Your task to perform on an android device: turn on javascript in the chrome app Image 0: 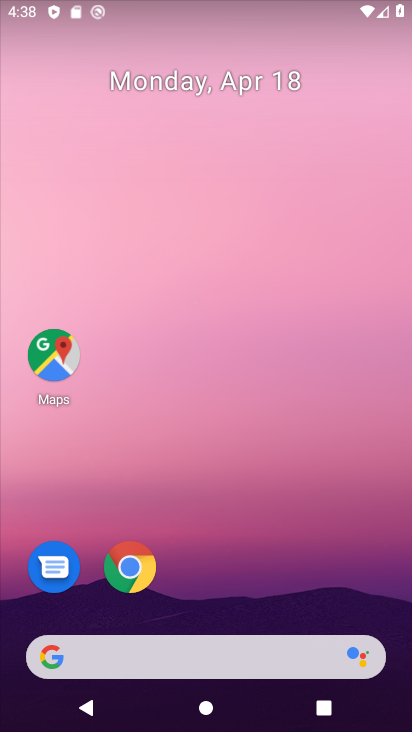
Step 0: click (124, 566)
Your task to perform on an android device: turn on javascript in the chrome app Image 1: 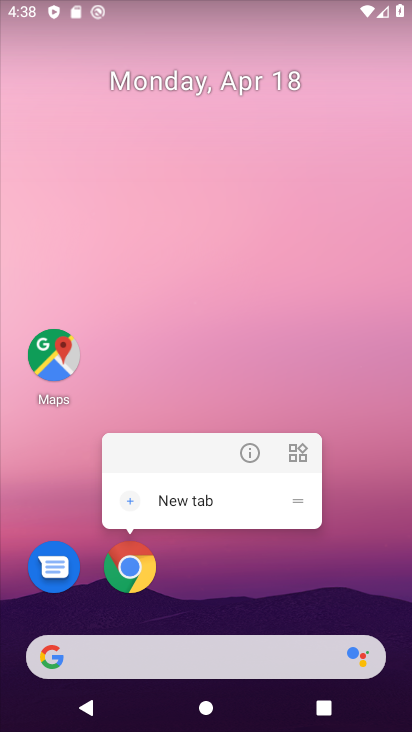
Step 1: click (124, 567)
Your task to perform on an android device: turn on javascript in the chrome app Image 2: 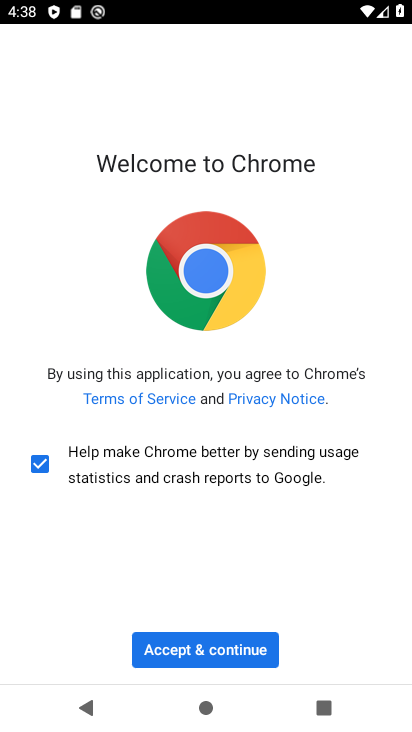
Step 2: click (199, 643)
Your task to perform on an android device: turn on javascript in the chrome app Image 3: 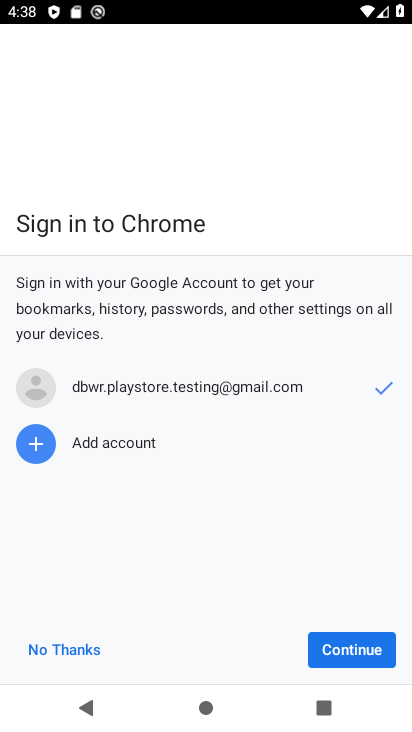
Step 3: click (337, 647)
Your task to perform on an android device: turn on javascript in the chrome app Image 4: 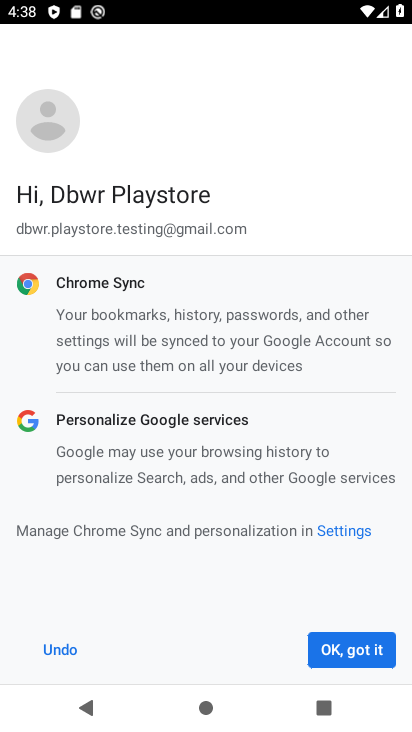
Step 4: click (337, 647)
Your task to perform on an android device: turn on javascript in the chrome app Image 5: 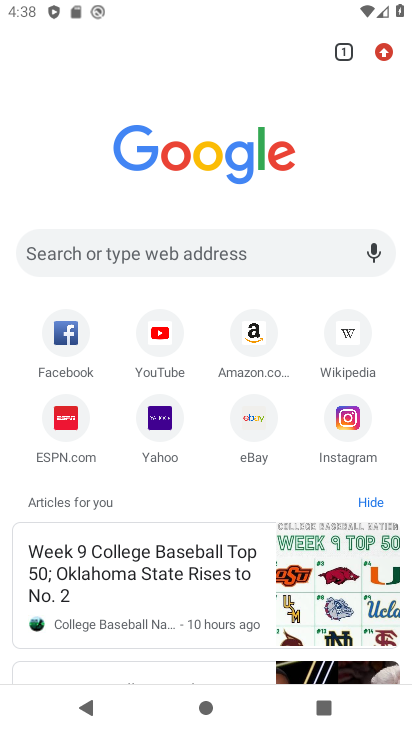
Step 5: click (386, 51)
Your task to perform on an android device: turn on javascript in the chrome app Image 6: 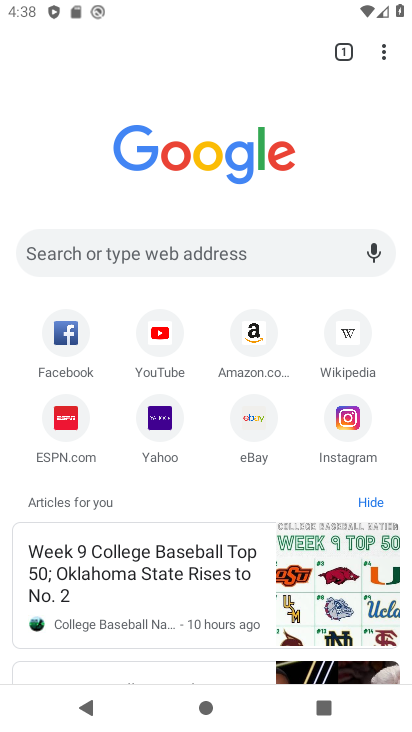
Step 6: click (386, 51)
Your task to perform on an android device: turn on javascript in the chrome app Image 7: 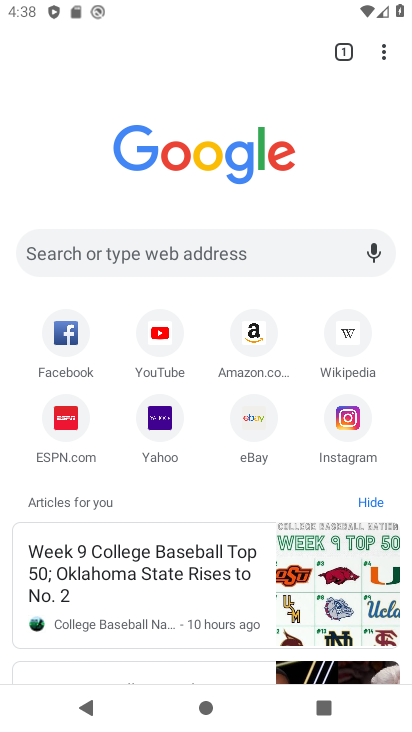
Step 7: click (393, 59)
Your task to perform on an android device: turn on javascript in the chrome app Image 8: 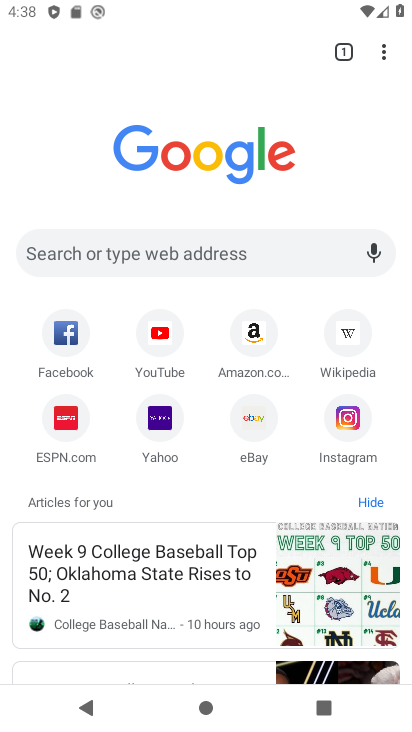
Step 8: click (379, 62)
Your task to perform on an android device: turn on javascript in the chrome app Image 9: 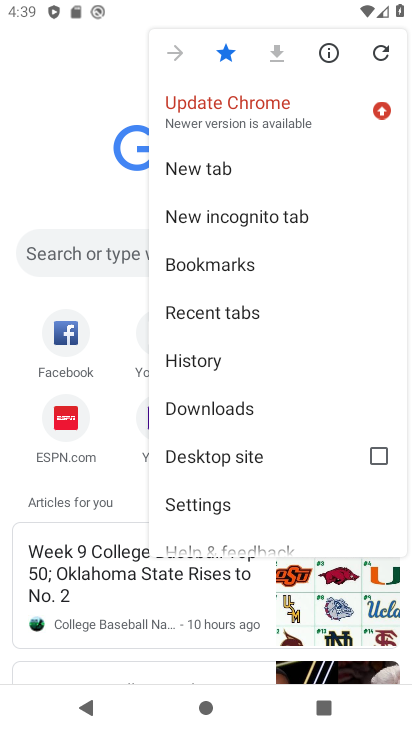
Step 9: click (196, 504)
Your task to perform on an android device: turn on javascript in the chrome app Image 10: 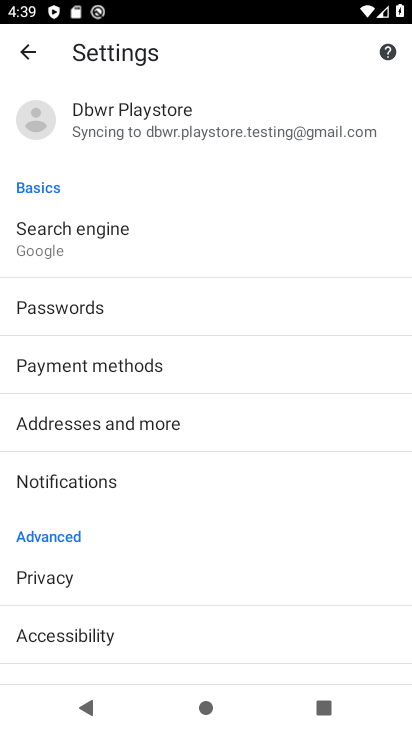
Step 10: drag from (147, 528) to (213, 366)
Your task to perform on an android device: turn on javascript in the chrome app Image 11: 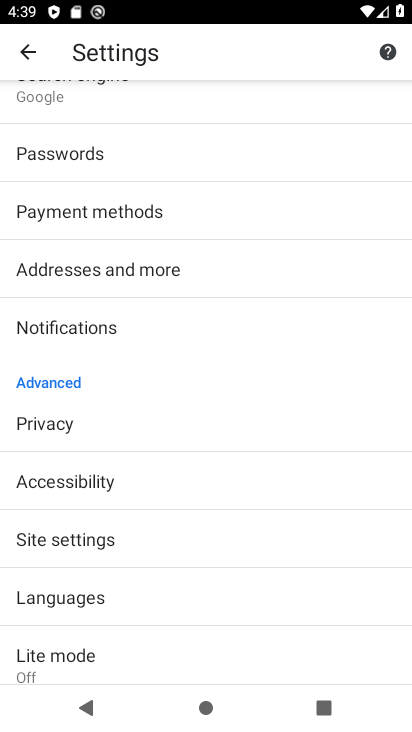
Step 11: click (104, 540)
Your task to perform on an android device: turn on javascript in the chrome app Image 12: 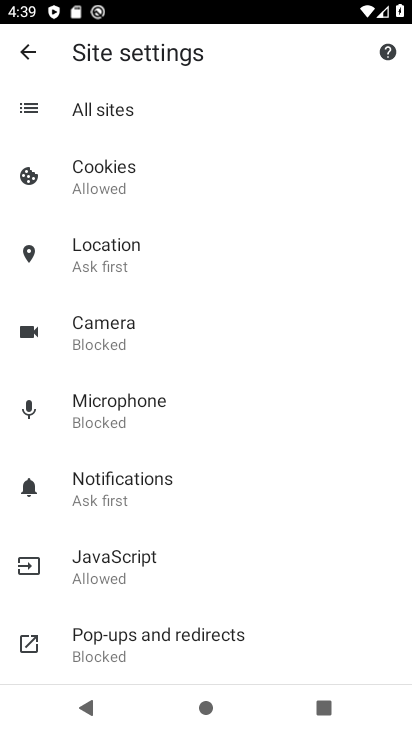
Step 12: click (135, 559)
Your task to perform on an android device: turn on javascript in the chrome app Image 13: 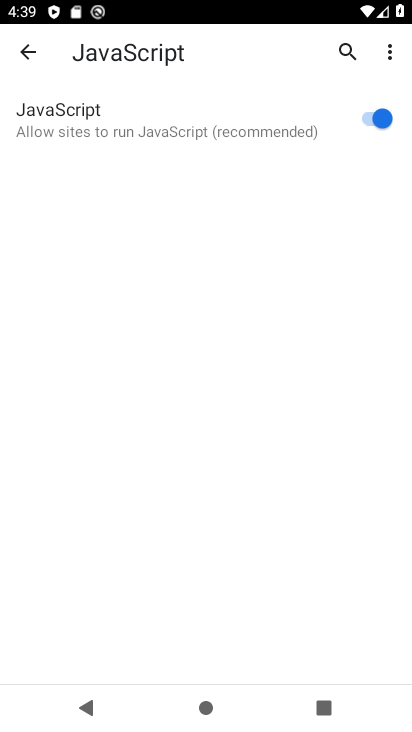
Step 13: task complete